Your task to perform on an android device: snooze an email in the gmail app Image 0: 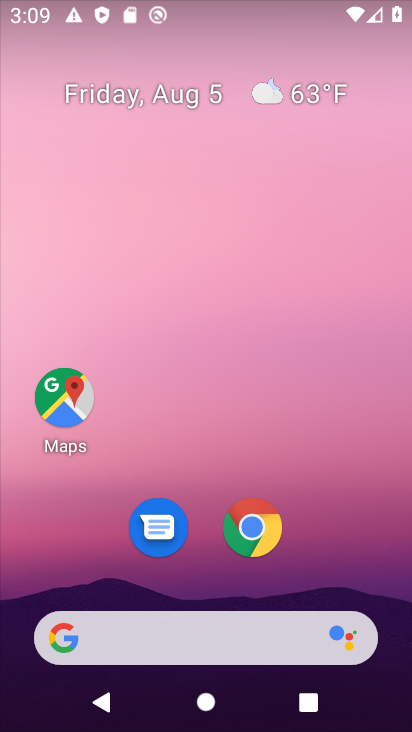
Step 0: drag from (210, 588) to (214, 115)
Your task to perform on an android device: snooze an email in the gmail app Image 1: 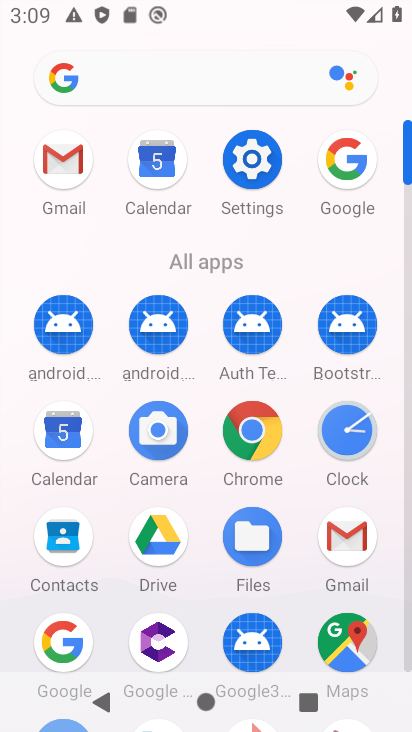
Step 1: click (357, 535)
Your task to perform on an android device: snooze an email in the gmail app Image 2: 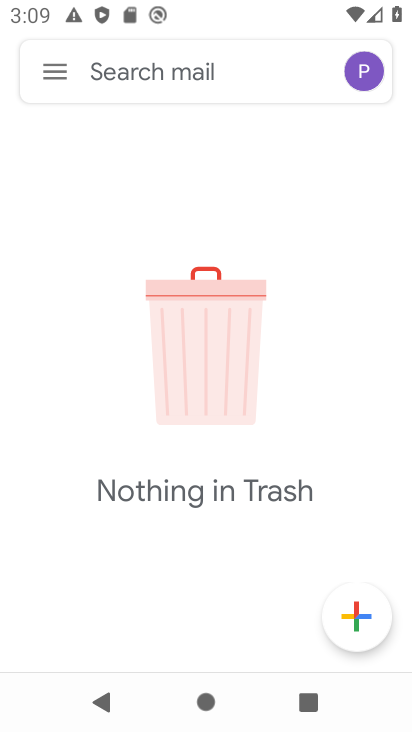
Step 2: click (54, 73)
Your task to perform on an android device: snooze an email in the gmail app Image 3: 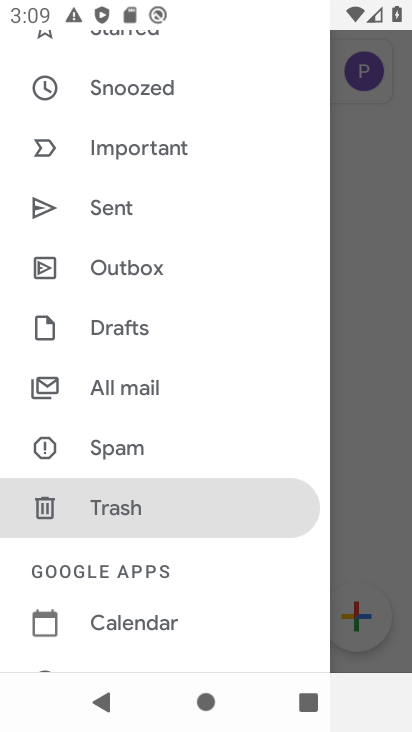
Step 3: drag from (134, 187) to (154, 592)
Your task to perform on an android device: snooze an email in the gmail app Image 4: 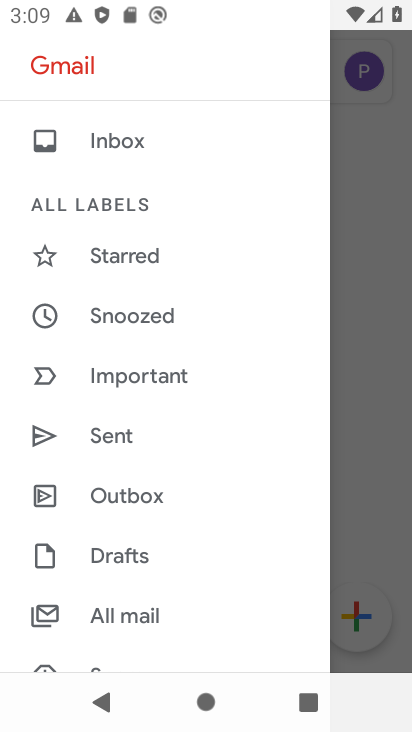
Step 4: click (116, 147)
Your task to perform on an android device: snooze an email in the gmail app Image 5: 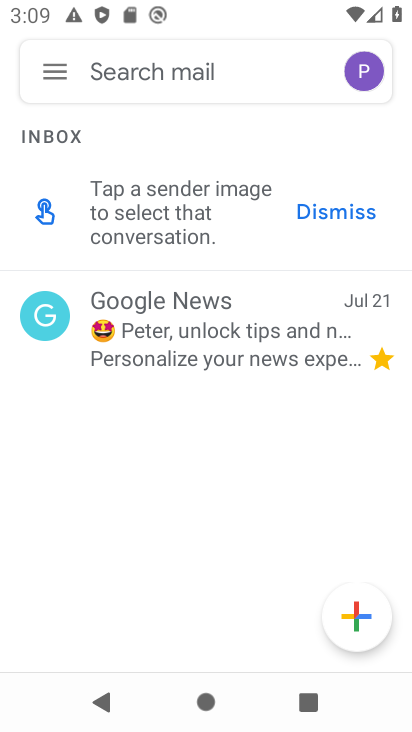
Step 5: click (193, 327)
Your task to perform on an android device: snooze an email in the gmail app Image 6: 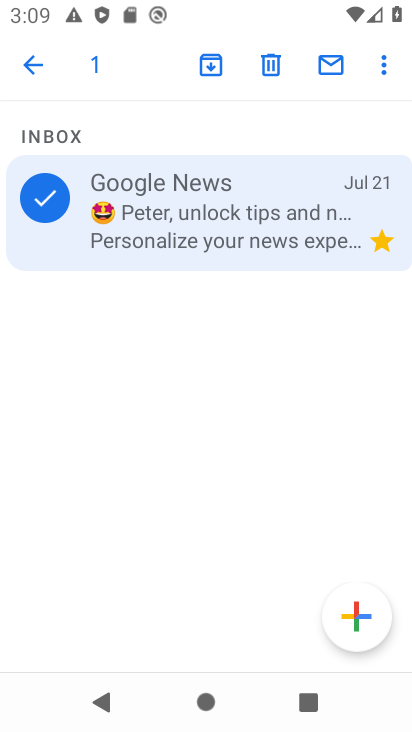
Step 6: click (383, 69)
Your task to perform on an android device: snooze an email in the gmail app Image 7: 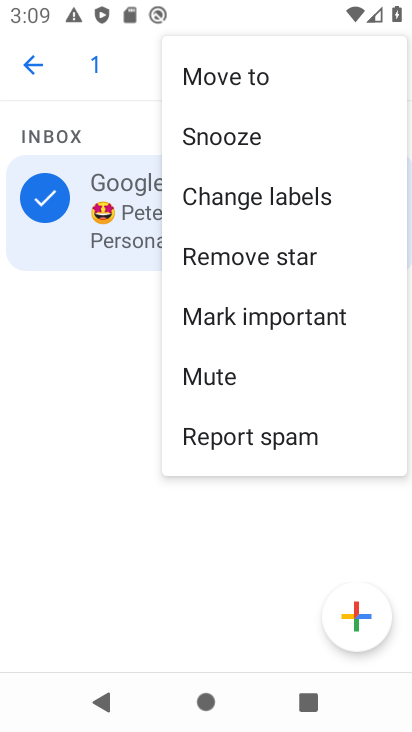
Step 7: click (237, 135)
Your task to perform on an android device: snooze an email in the gmail app Image 8: 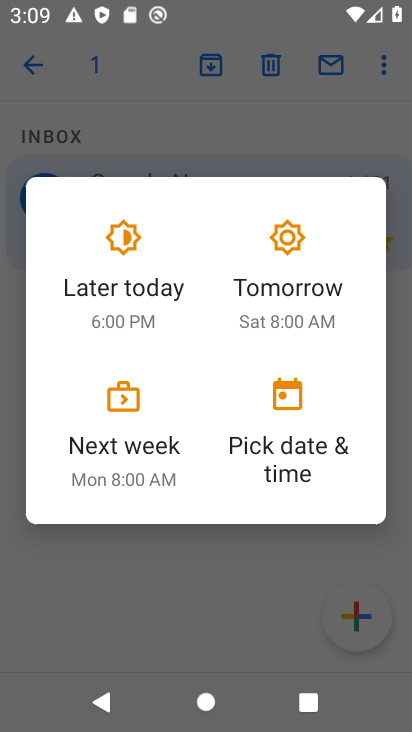
Step 8: click (129, 433)
Your task to perform on an android device: snooze an email in the gmail app Image 9: 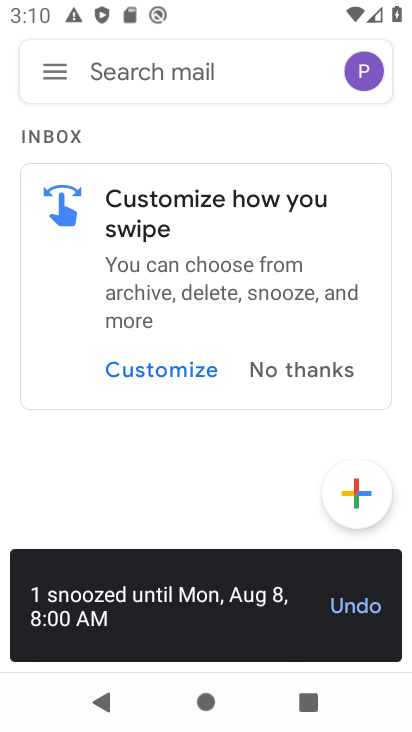
Step 9: task complete